Your task to perform on an android device: Open location settings Image 0: 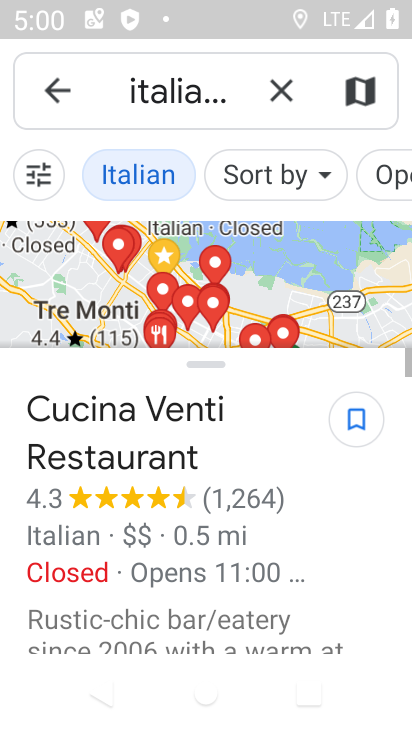
Step 0: click (260, 111)
Your task to perform on an android device: Open location settings Image 1: 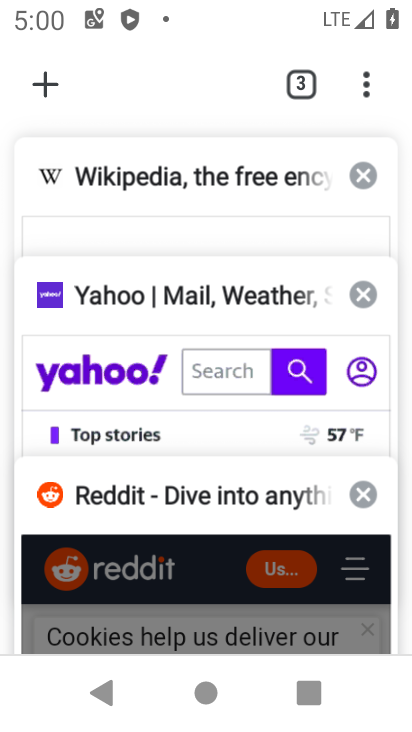
Step 1: press home button
Your task to perform on an android device: Open location settings Image 2: 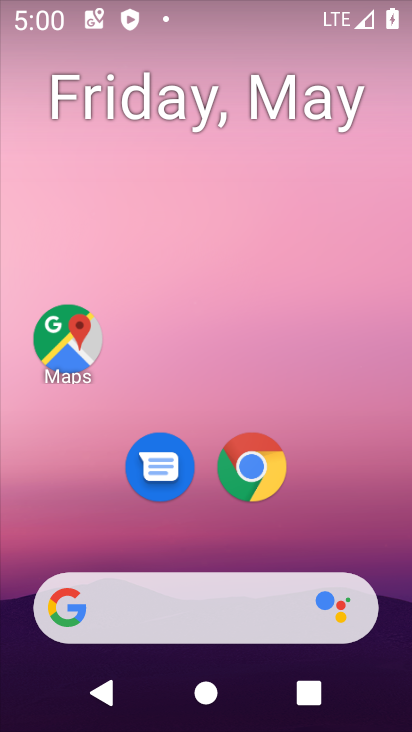
Step 2: drag from (298, 464) to (269, 112)
Your task to perform on an android device: Open location settings Image 3: 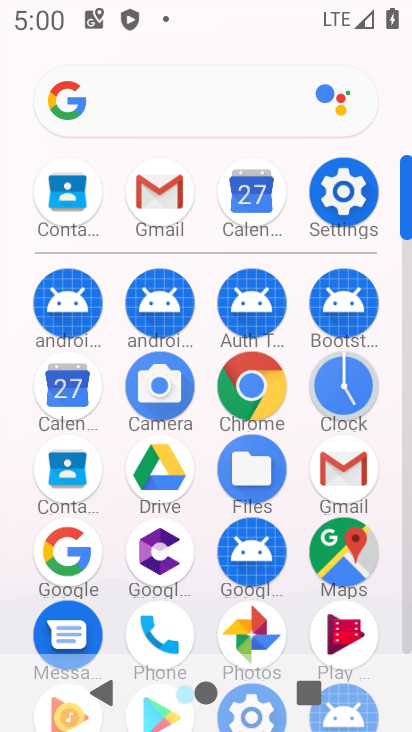
Step 3: click (365, 201)
Your task to perform on an android device: Open location settings Image 4: 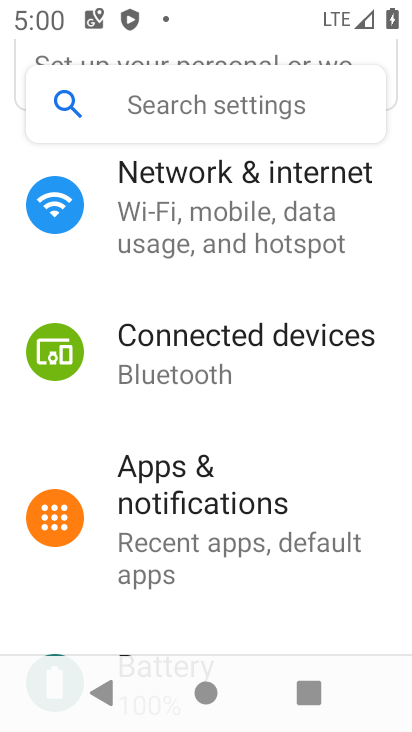
Step 4: drag from (201, 240) to (258, 537)
Your task to perform on an android device: Open location settings Image 5: 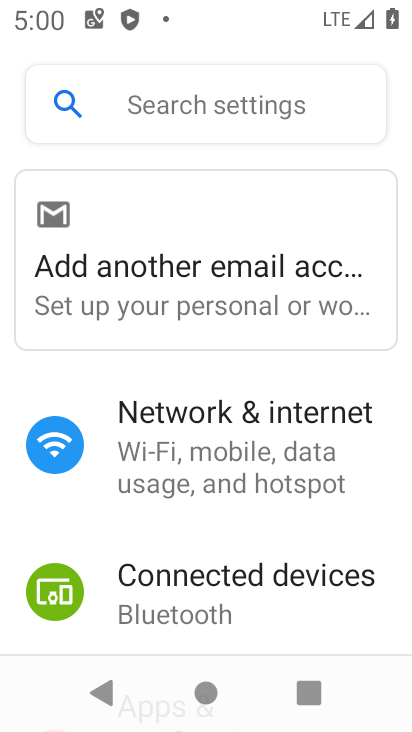
Step 5: drag from (253, 543) to (231, 199)
Your task to perform on an android device: Open location settings Image 6: 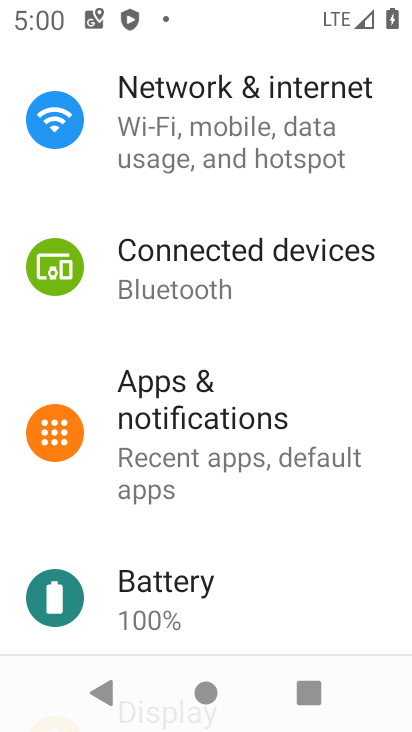
Step 6: drag from (212, 433) to (211, 257)
Your task to perform on an android device: Open location settings Image 7: 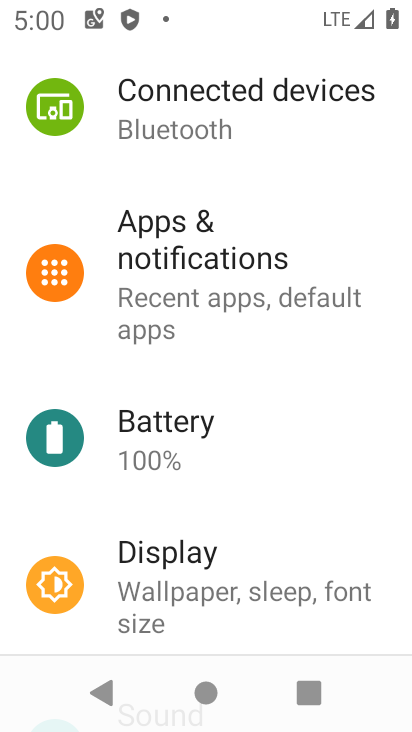
Step 7: drag from (189, 615) to (220, 306)
Your task to perform on an android device: Open location settings Image 8: 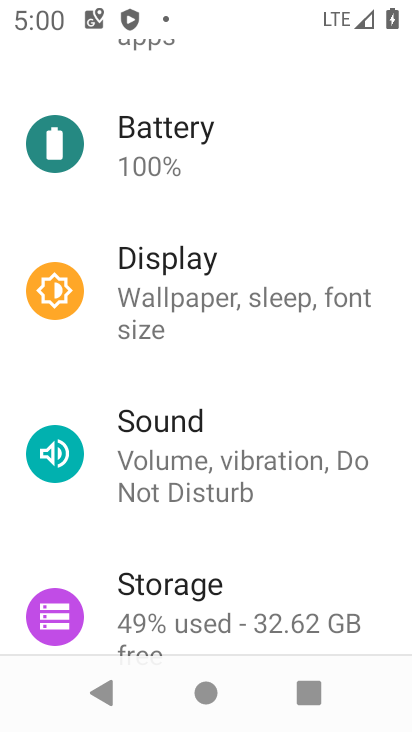
Step 8: drag from (208, 507) to (221, 263)
Your task to perform on an android device: Open location settings Image 9: 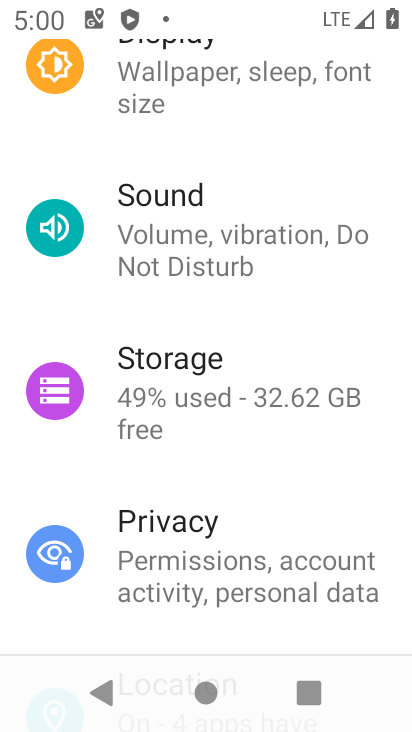
Step 9: drag from (195, 477) to (216, 239)
Your task to perform on an android device: Open location settings Image 10: 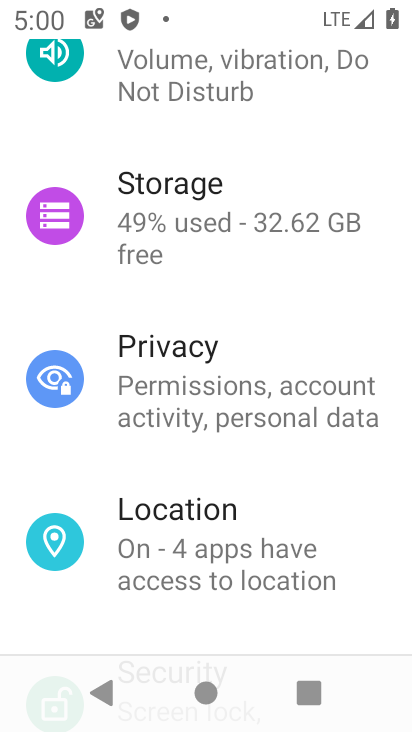
Step 10: click (206, 531)
Your task to perform on an android device: Open location settings Image 11: 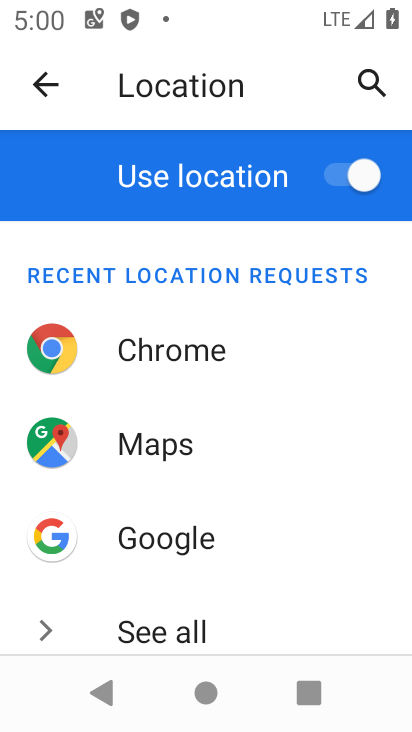
Step 11: task complete